Your task to perform on an android device: install app "Venmo" Image 0: 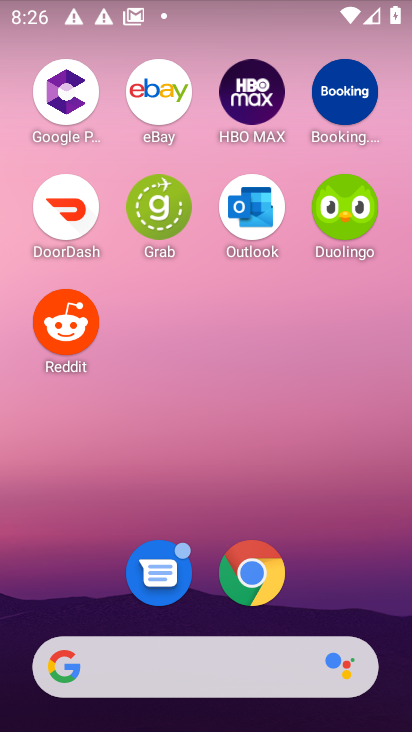
Step 0: drag from (200, 621) to (201, 42)
Your task to perform on an android device: install app "Venmo" Image 1: 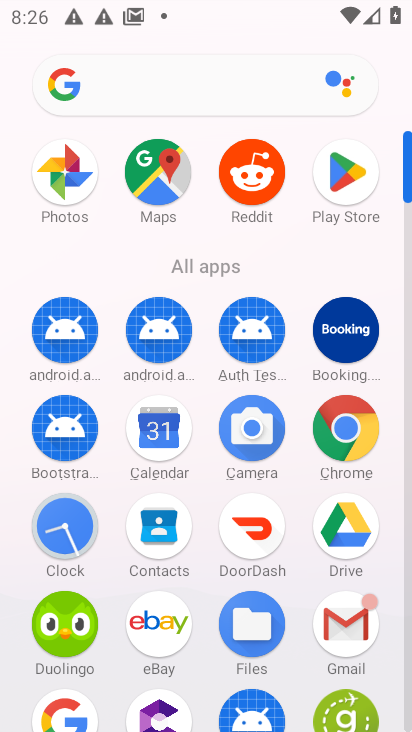
Step 1: click (335, 191)
Your task to perform on an android device: install app "Venmo" Image 2: 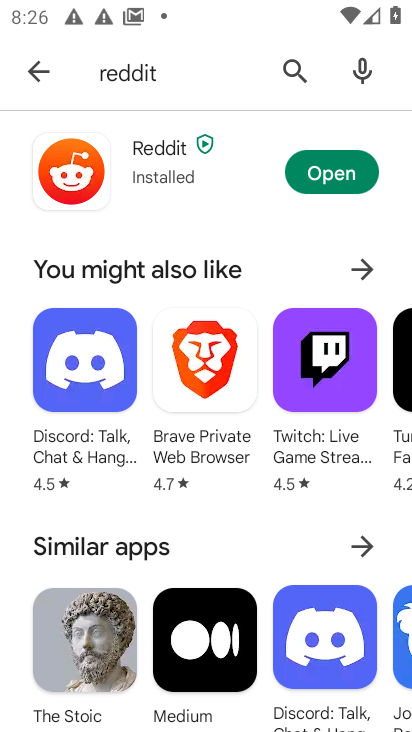
Step 2: click (175, 80)
Your task to perform on an android device: install app "Venmo" Image 3: 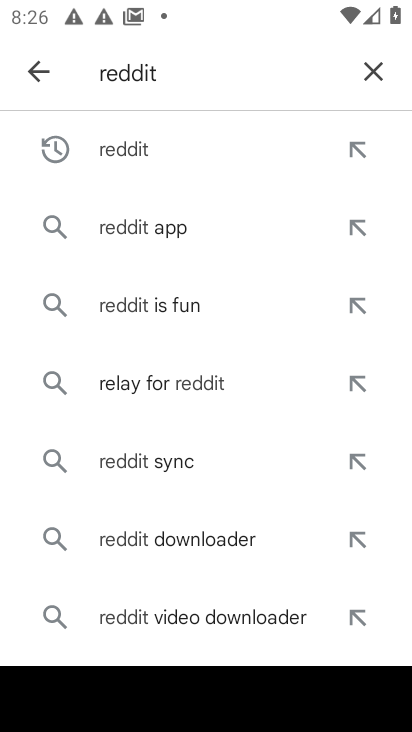
Step 3: click (370, 70)
Your task to perform on an android device: install app "Venmo" Image 4: 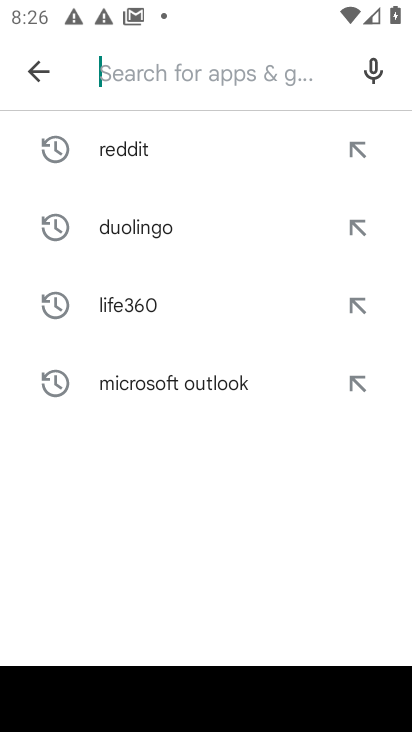
Step 4: type "venmo"
Your task to perform on an android device: install app "Venmo" Image 5: 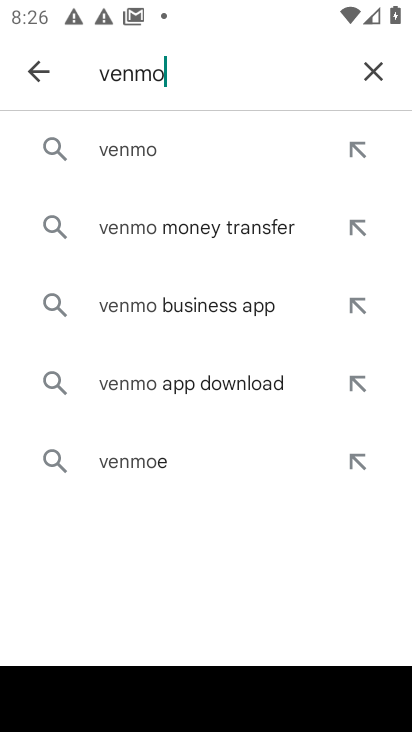
Step 5: click (255, 138)
Your task to perform on an android device: install app "Venmo" Image 6: 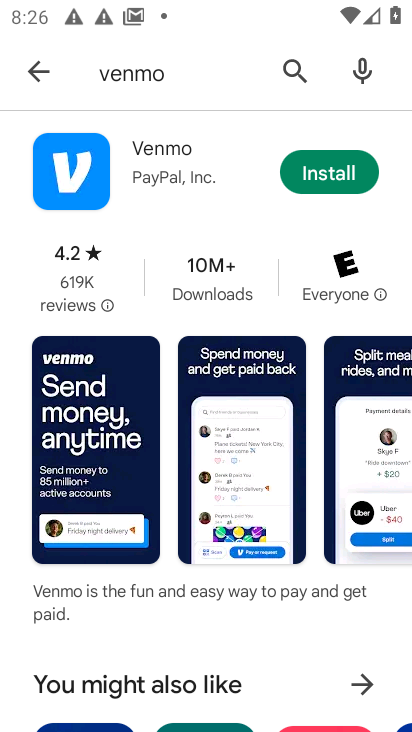
Step 6: click (341, 168)
Your task to perform on an android device: install app "Venmo" Image 7: 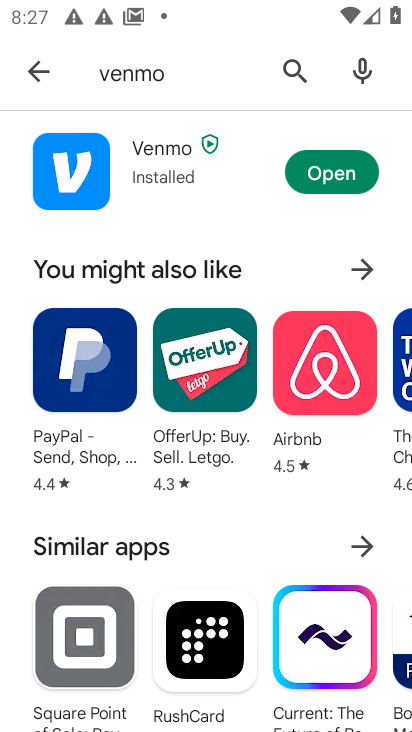
Step 7: click (359, 170)
Your task to perform on an android device: install app "Venmo" Image 8: 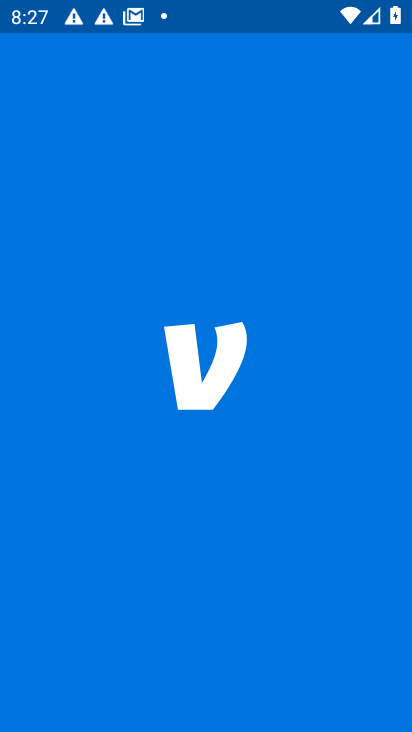
Step 8: task complete